Your task to perform on an android device: see sites visited before in the chrome app Image 0: 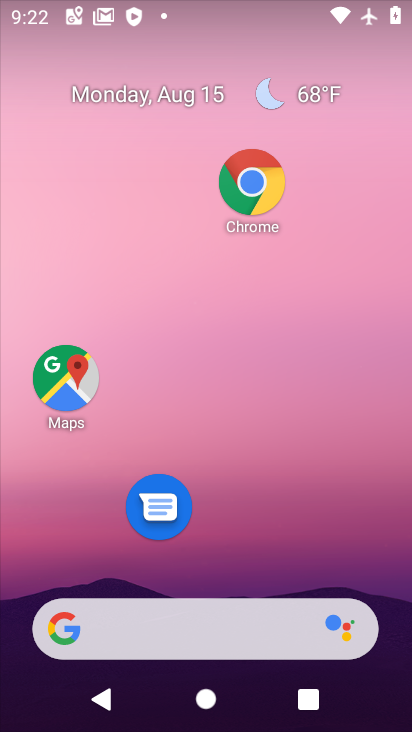
Step 0: click (230, 203)
Your task to perform on an android device: see sites visited before in the chrome app Image 1: 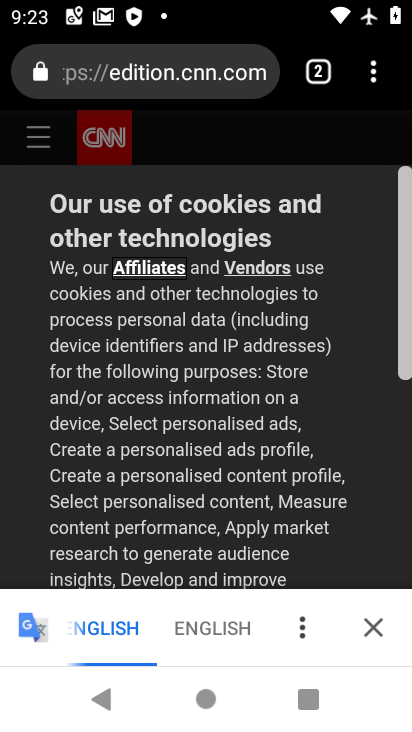
Step 1: click (372, 67)
Your task to perform on an android device: see sites visited before in the chrome app Image 2: 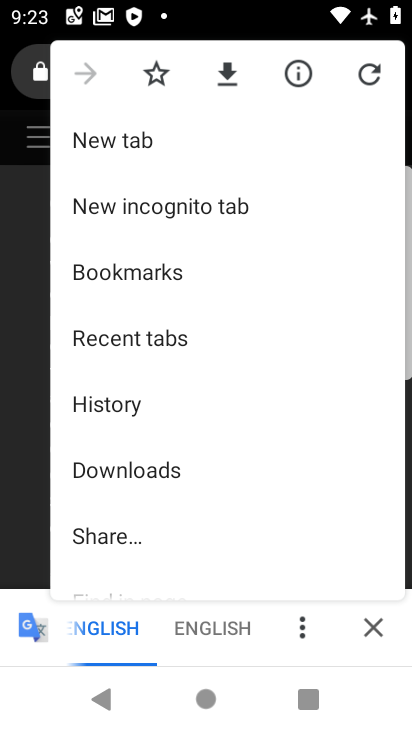
Step 2: drag from (124, 500) to (137, 198)
Your task to perform on an android device: see sites visited before in the chrome app Image 3: 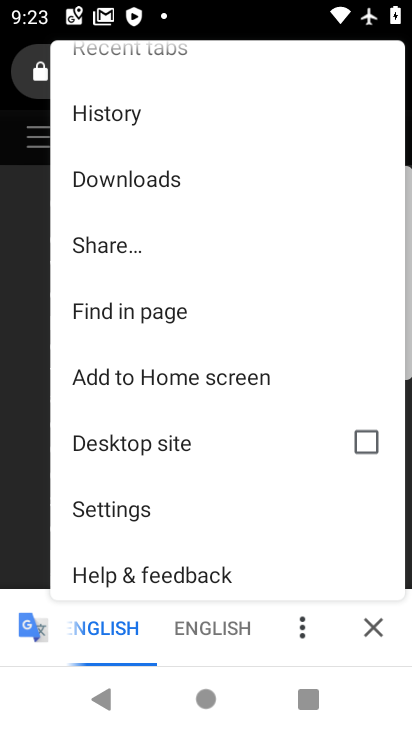
Step 3: click (131, 496)
Your task to perform on an android device: see sites visited before in the chrome app Image 4: 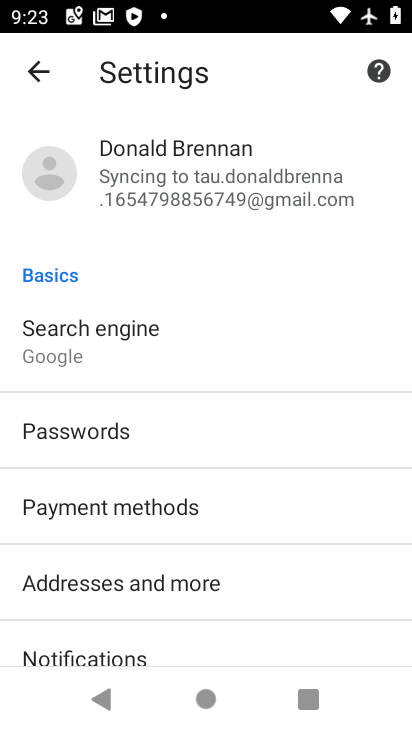
Step 4: task complete